Your task to perform on an android device: turn notification dots on Image 0: 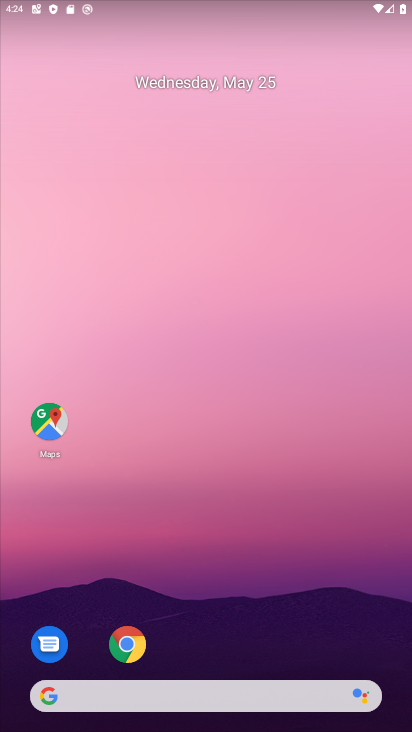
Step 0: drag from (252, 665) to (264, 27)
Your task to perform on an android device: turn notification dots on Image 1: 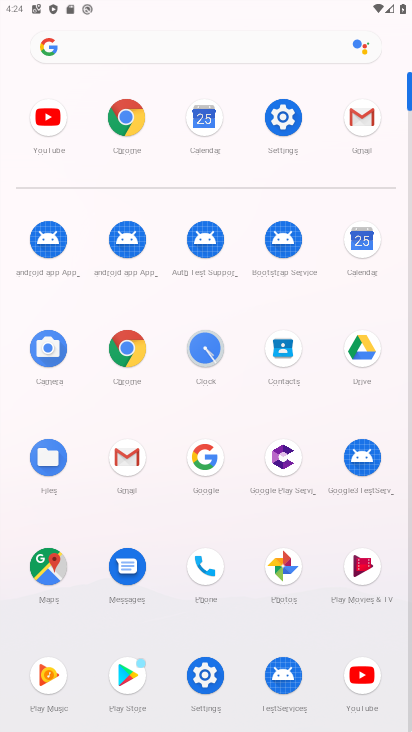
Step 1: click (276, 120)
Your task to perform on an android device: turn notification dots on Image 2: 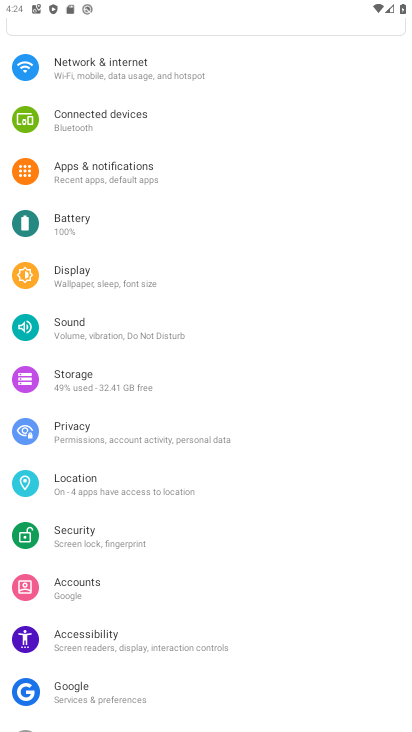
Step 2: click (74, 170)
Your task to perform on an android device: turn notification dots on Image 3: 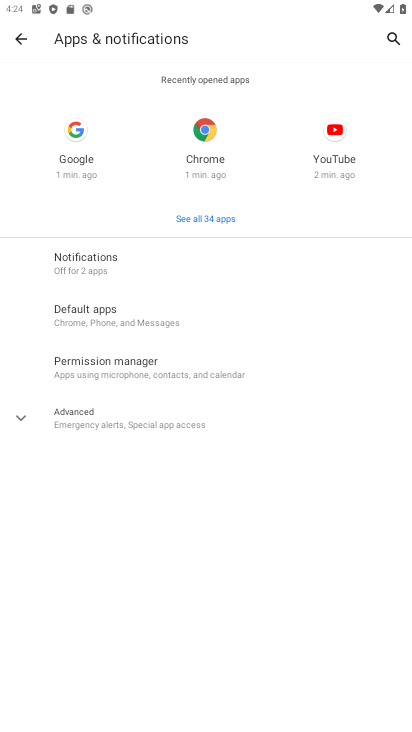
Step 3: click (88, 270)
Your task to perform on an android device: turn notification dots on Image 4: 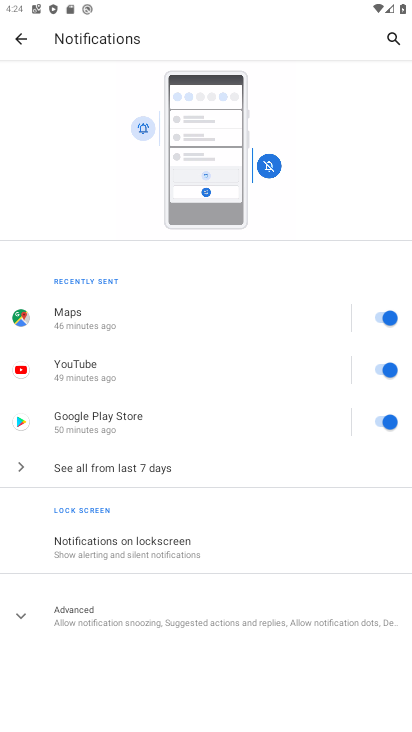
Step 4: click (21, 619)
Your task to perform on an android device: turn notification dots on Image 5: 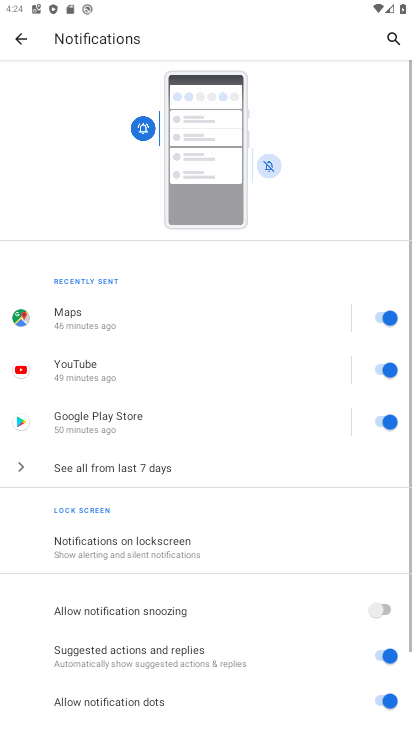
Step 5: task complete